Your task to perform on an android device: Play the last video I watched on Youtube Image 0: 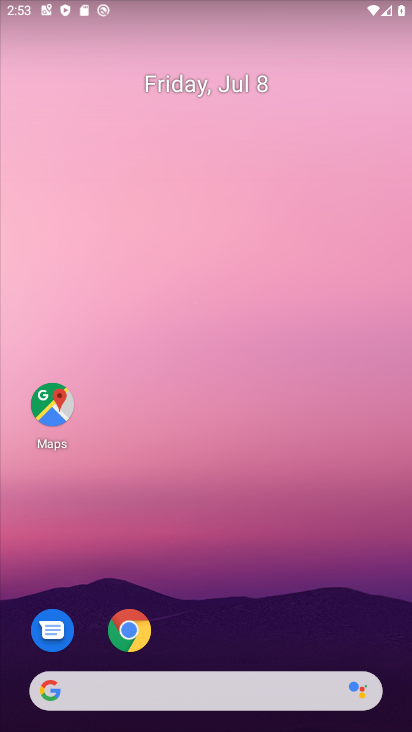
Step 0: drag from (337, 628) to (243, 178)
Your task to perform on an android device: Play the last video I watched on Youtube Image 1: 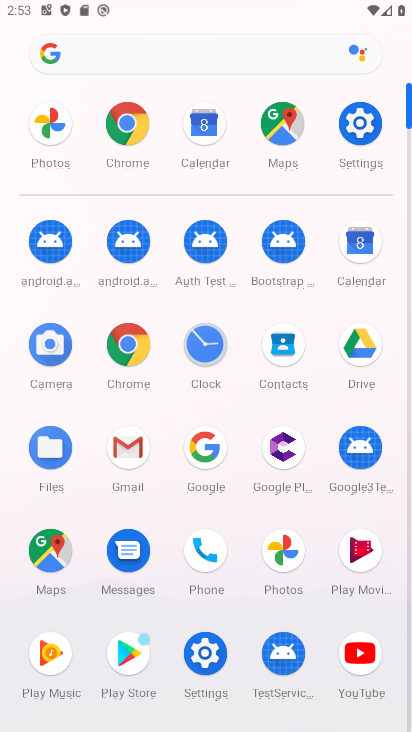
Step 1: click (371, 693)
Your task to perform on an android device: Play the last video I watched on Youtube Image 2: 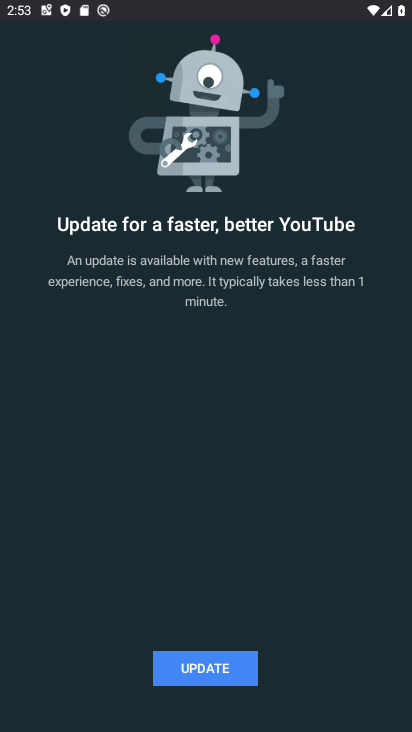
Step 2: click (198, 659)
Your task to perform on an android device: Play the last video I watched on Youtube Image 3: 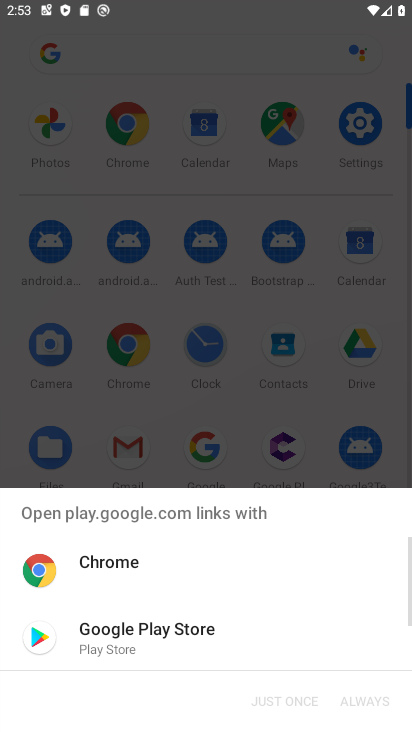
Step 3: click (178, 635)
Your task to perform on an android device: Play the last video I watched on Youtube Image 4: 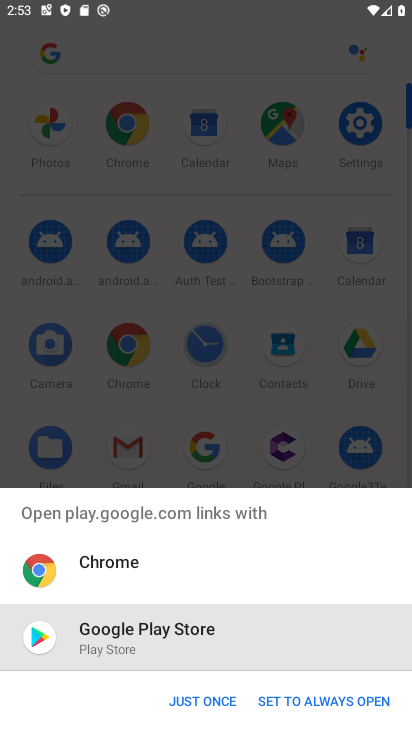
Step 4: click (178, 635)
Your task to perform on an android device: Play the last video I watched on Youtube Image 5: 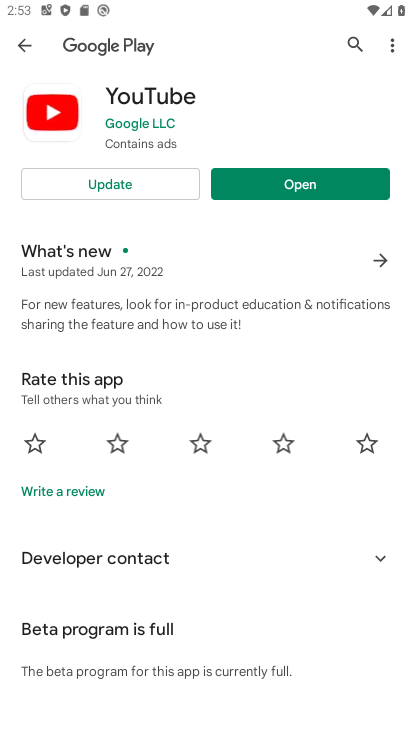
Step 5: click (115, 193)
Your task to perform on an android device: Play the last video I watched on Youtube Image 6: 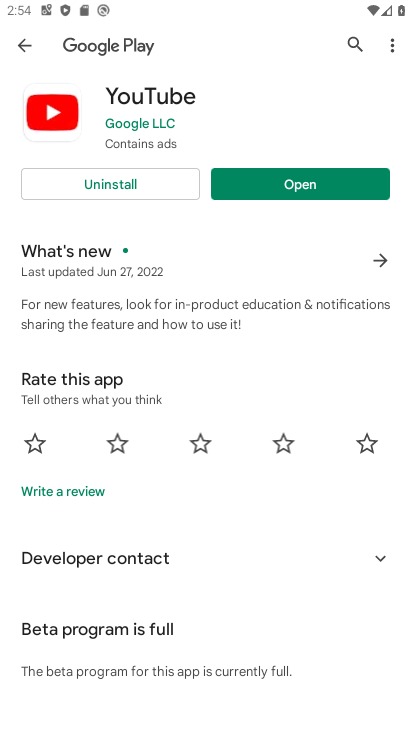
Step 6: click (339, 180)
Your task to perform on an android device: Play the last video I watched on Youtube Image 7: 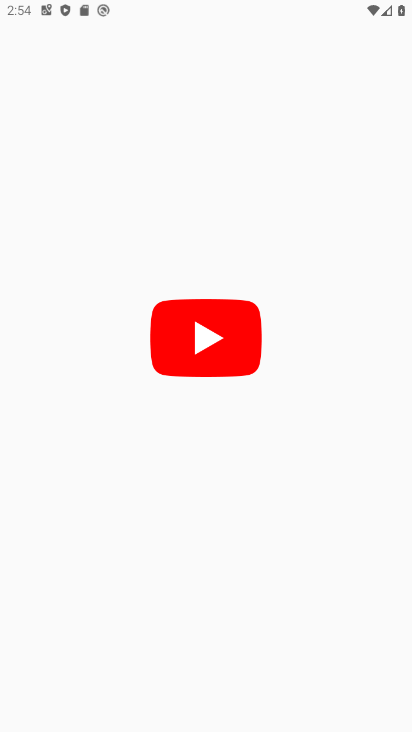
Step 7: task complete